Your task to perform on an android device: Open Android settings Image 0: 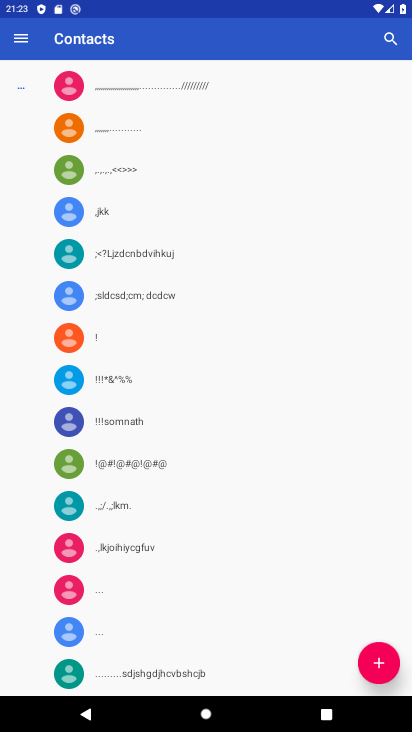
Step 0: press home button
Your task to perform on an android device: Open Android settings Image 1: 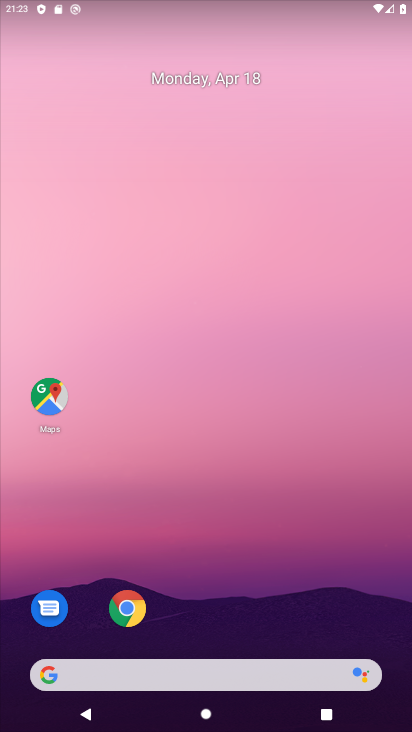
Step 1: drag from (262, 403) to (247, 244)
Your task to perform on an android device: Open Android settings Image 2: 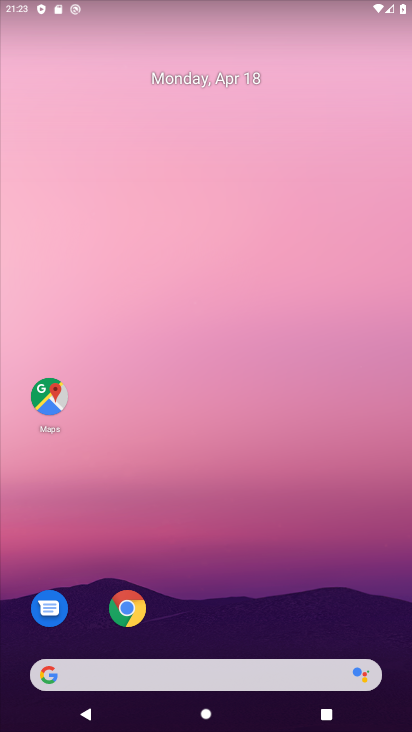
Step 2: drag from (233, 583) to (251, 216)
Your task to perform on an android device: Open Android settings Image 3: 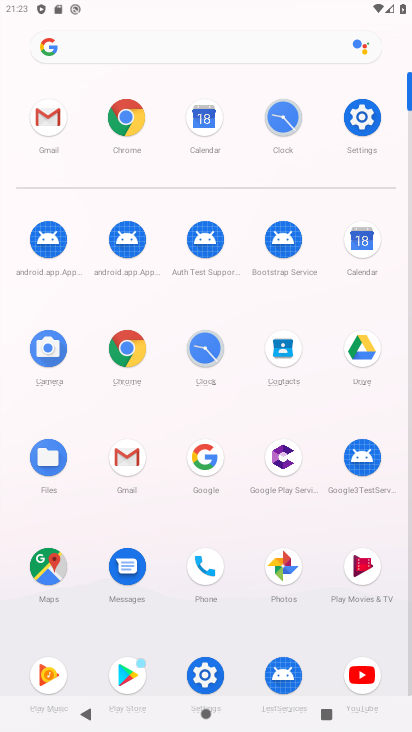
Step 3: click (359, 111)
Your task to perform on an android device: Open Android settings Image 4: 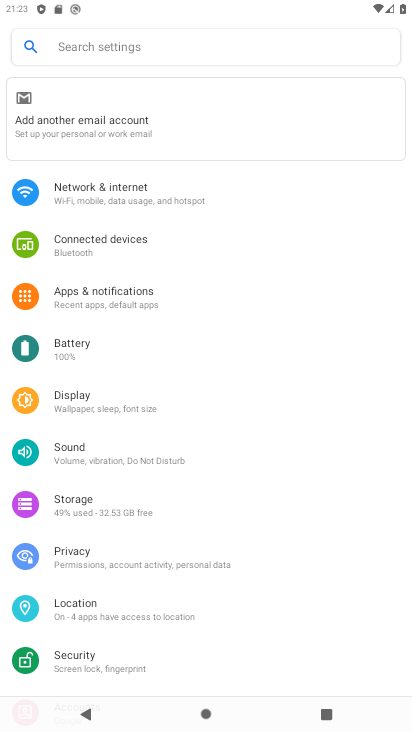
Step 4: drag from (216, 575) to (260, 95)
Your task to perform on an android device: Open Android settings Image 5: 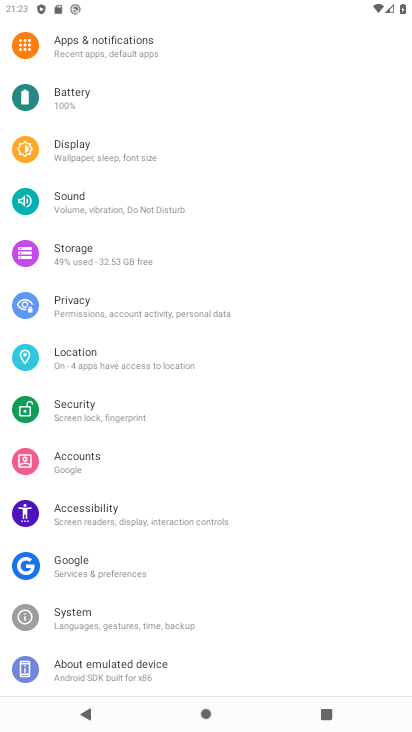
Step 5: drag from (197, 566) to (160, 121)
Your task to perform on an android device: Open Android settings Image 6: 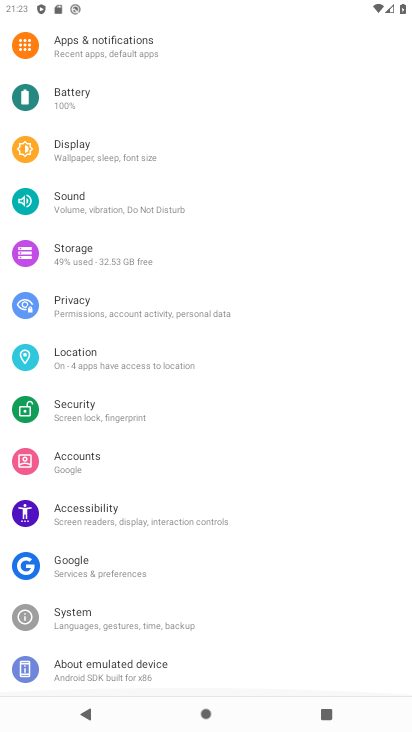
Step 6: click (111, 669)
Your task to perform on an android device: Open Android settings Image 7: 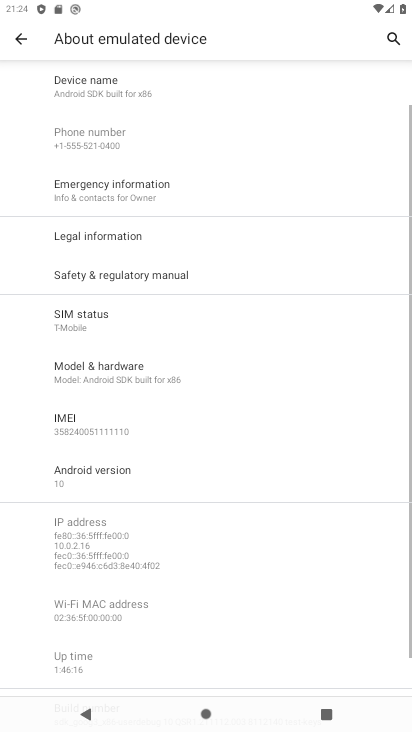
Step 7: task complete